Your task to perform on an android device: Open Amazon Image 0: 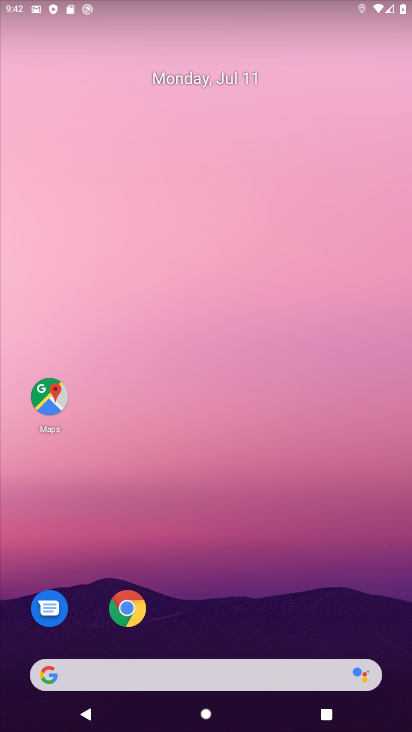
Step 0: press back button
Your task to perform on an android device: Open Amazon Image 1: 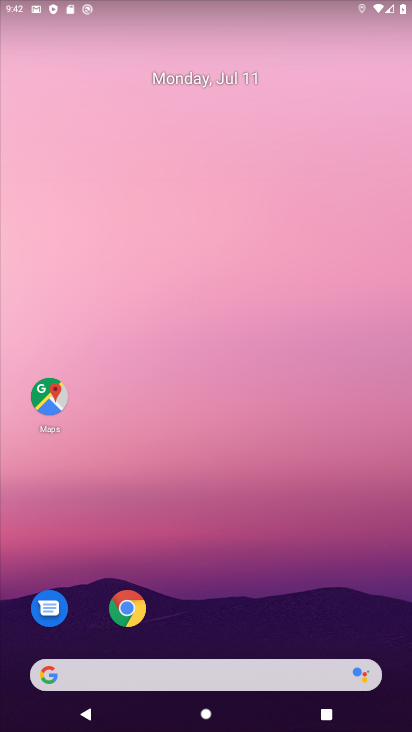
Step 1: drag from (266, 663) to (249, 354)
Your task to perform on an android device: Open Amazon Image 2: 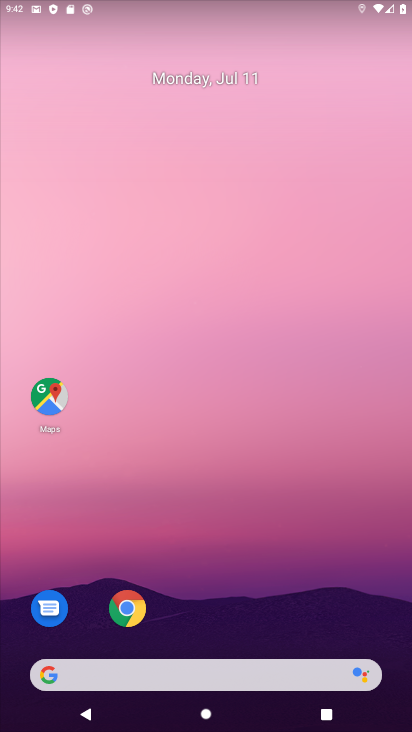
Step 2: drag from (263, 629) to (179, 325)
Your task to perform on an android device: Open Amazon Image 3: 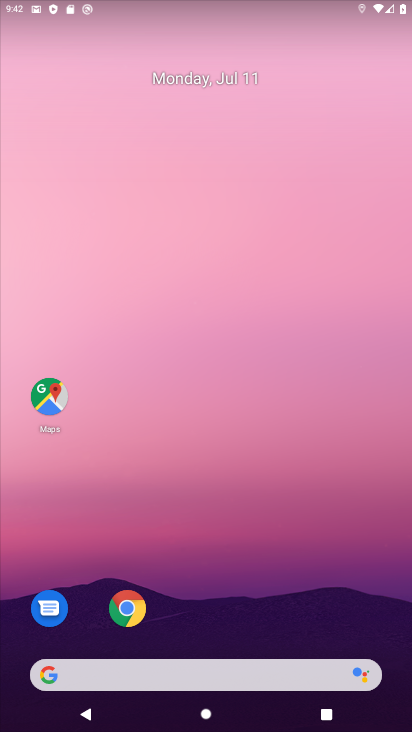
Step 3: drag from (279, 620) to (210, 104)
Your task to perform on an android device: Open Amazon Image 4: 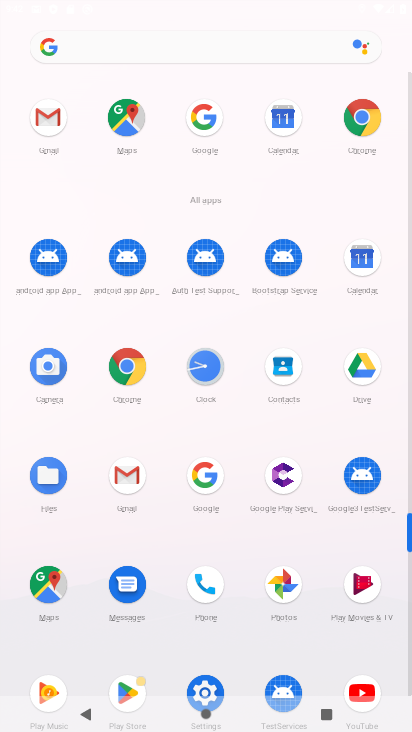
Step 4: click (352, 119)
Your task to perform on an android device: Open Amazon Image 5: 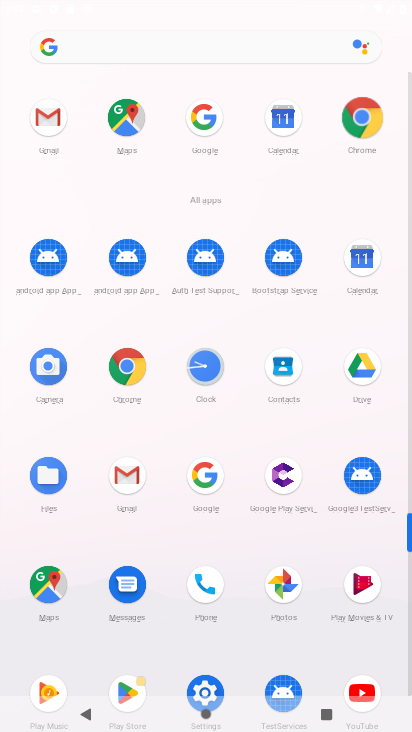
Step 5: click (369, 112)
Your task to perform on an android device: Open Amazon Image 6: 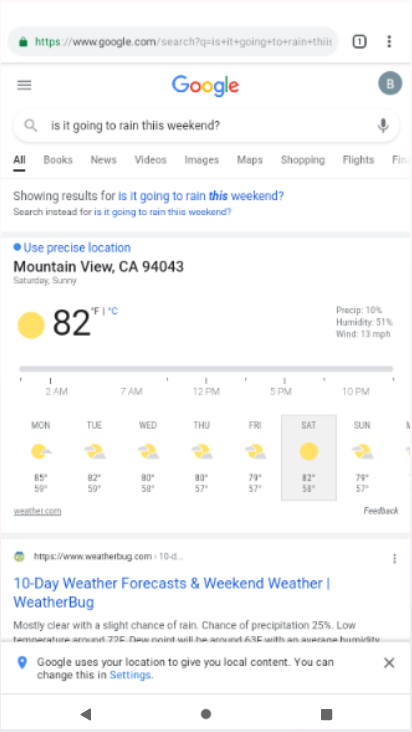
Step 6: click (369, 111)
Your task to perform on an android device: Open Amazon Image 7: 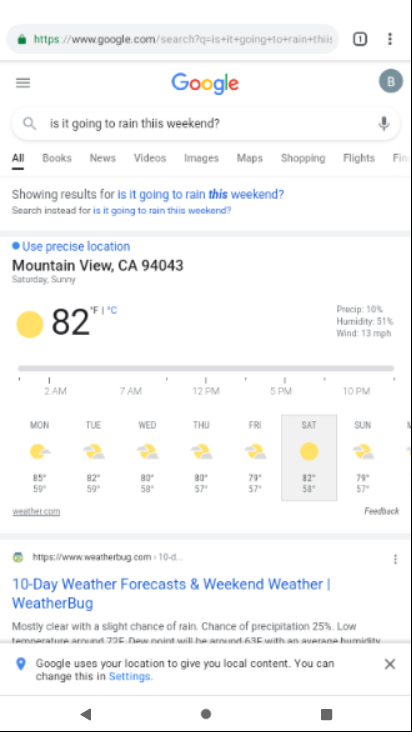
Step 7: click (371, 111)
Your task to perform on an android device: Open Amazon Image 8: 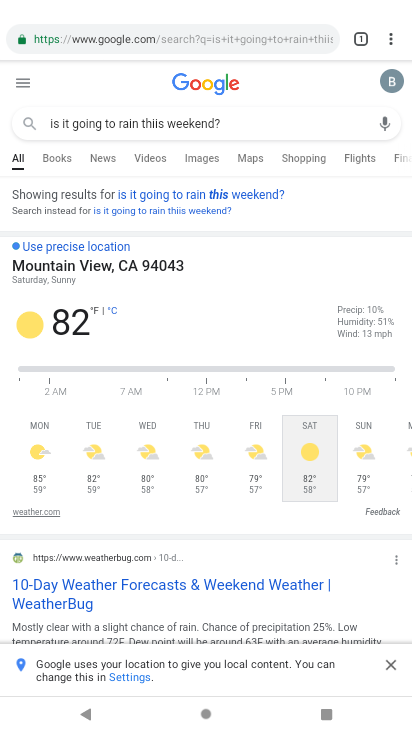
Step 8: drag from (390, 33) to (258, 75)
Your task to perform on an android device: Open Amazon Image 9: 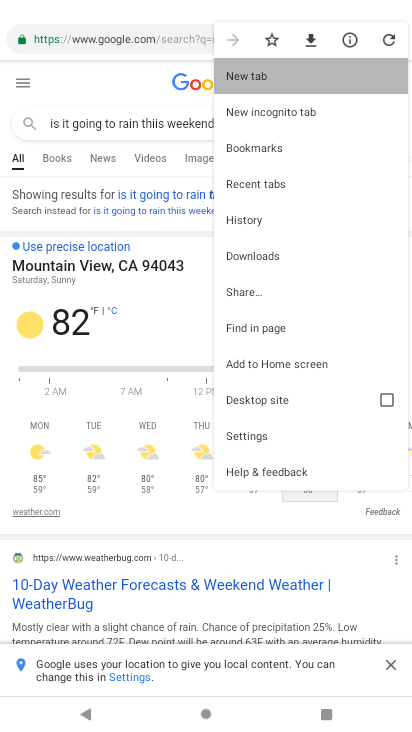
Step 9: click (258, 73)
Your task to perform on an android device: Open Amazon Image 10: 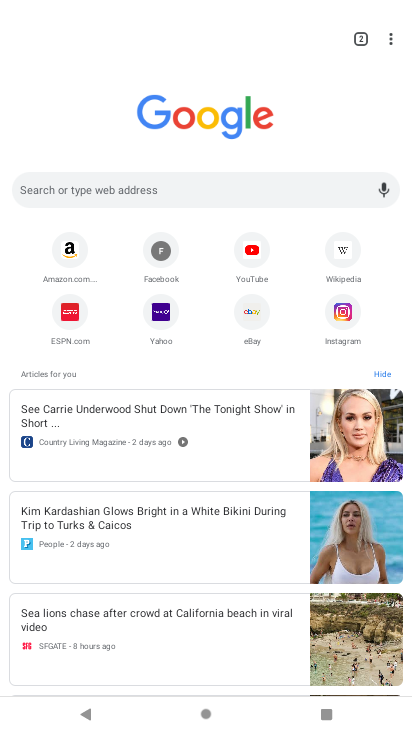
Step 10: click (65, 246)
Your task to perform on an android device: Open Amazon Image 11: 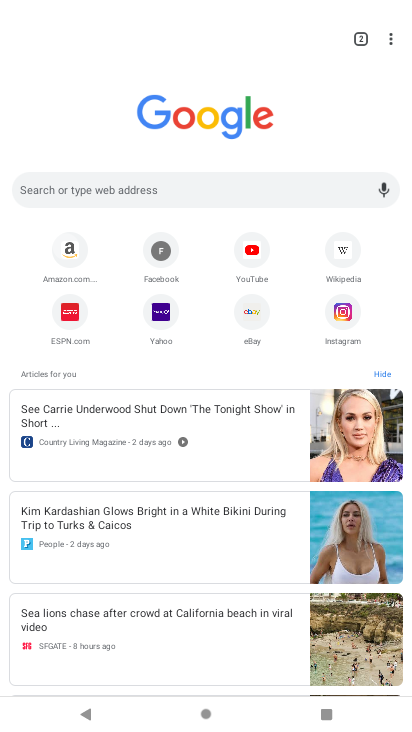
Step 11: click (66, 246)
Your task to perform on an android device: Open Amazon Image 12: 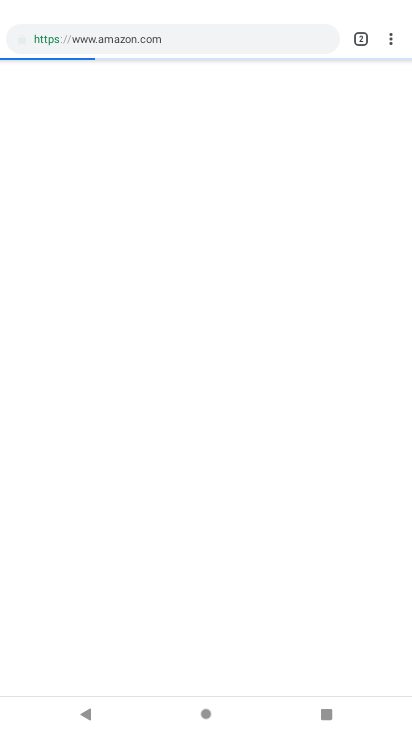
Step 12: click (66, 245)
Your task to perform on an android device: Open Amazon Image 13: 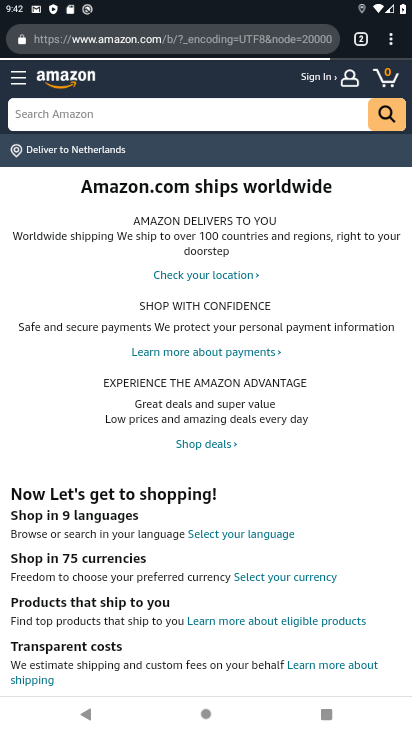
Step 13: task complete